Your task to perform on an android device: turn off location history Image 0: 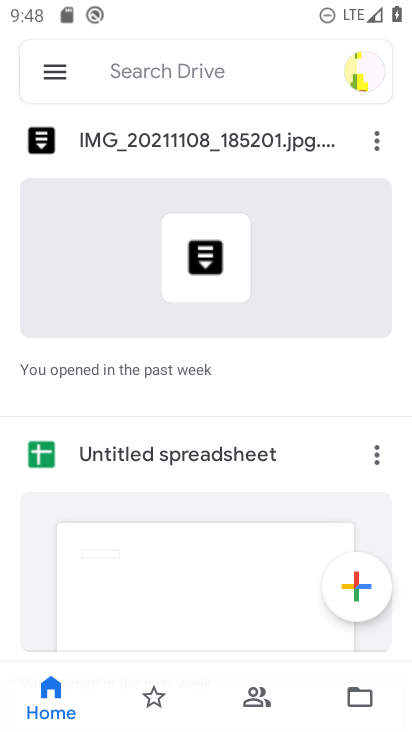
Step 0: press home button
Your task to perform on an android device: turn off location history Image 1: 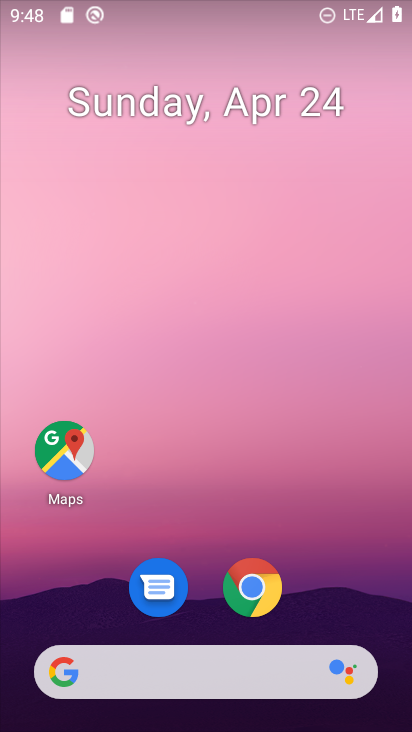
Step 1: drag from (370, 565) to (355, 120)
Your task to perform on an android device: turn off location history Image 2: 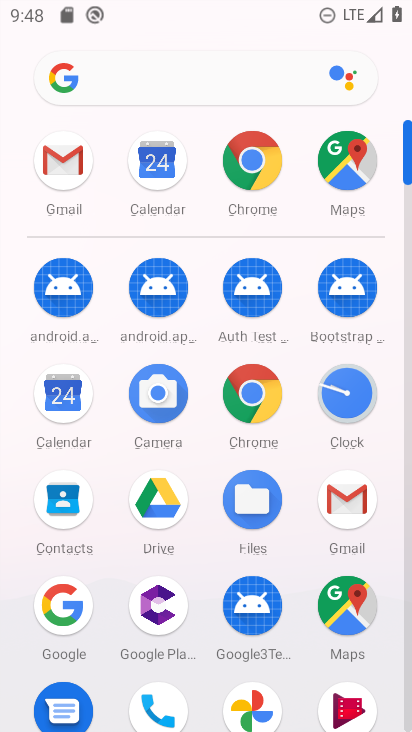
Step 2: drag from (214, 559) to (219, 232)
Your task to perform on an android device: turn off location history Image 3: 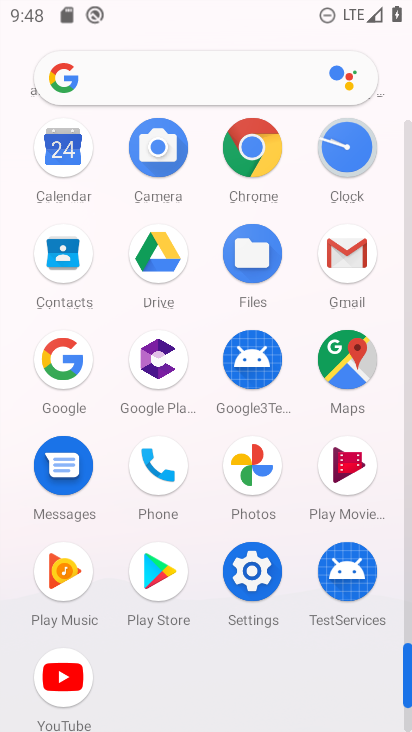
Step 3: click (244, 580)
Your task to perform on an android device: turn off location history Image 4: 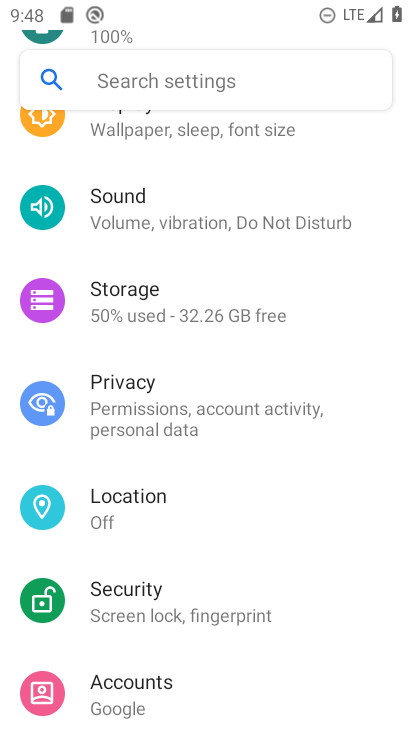
Step 4: drag from (278, 580) to (278, 211)
Your task to perform on an android device: turn off location history Image 5: 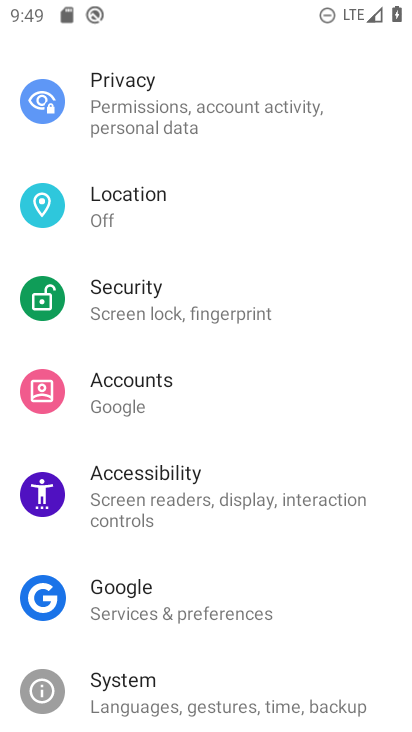
Step 5: click (104, 203)
Your task to perform on an android device: turn off location history Image 6: 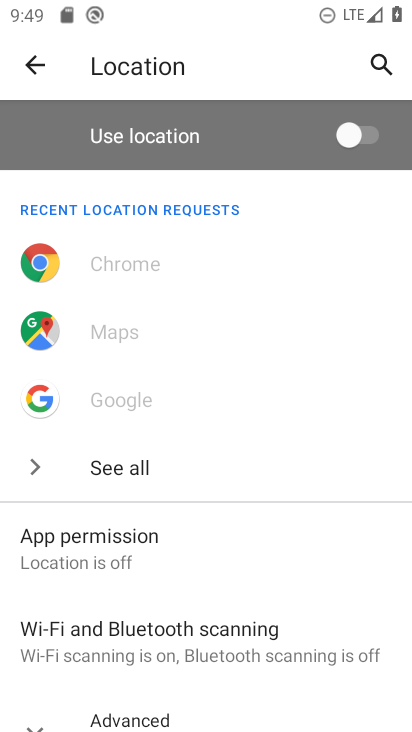
Step 6: drag from (315, 605) to (329, 296)
Your task to perform on an android device: turn off location history Image 7: 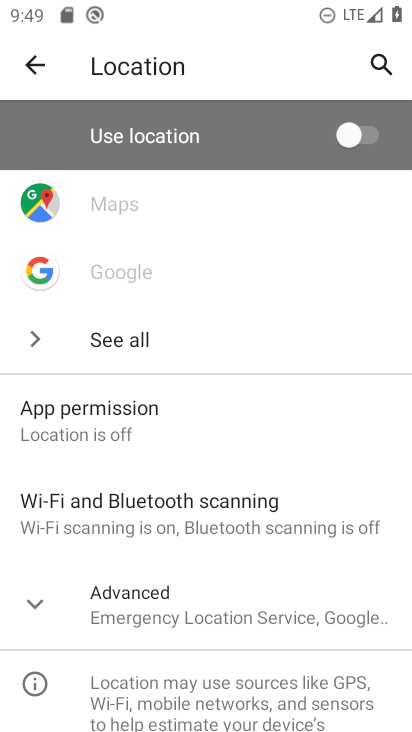
Step 7: drag from (250, 597) to (274, 315)
Your task to perform on an android device: turn off location history Image 8: 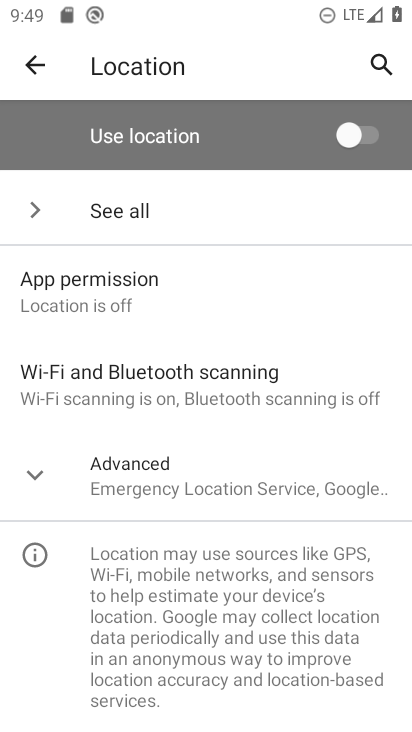
Step 8: click (243, 490)
Your task to perform on an android device: turn off location history Image 9: 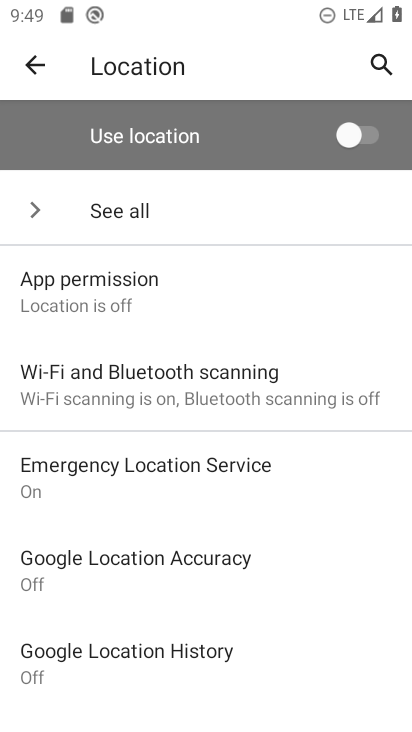
Step 9: task complete